Your task to perform on an android device: show emergency info Image 0: 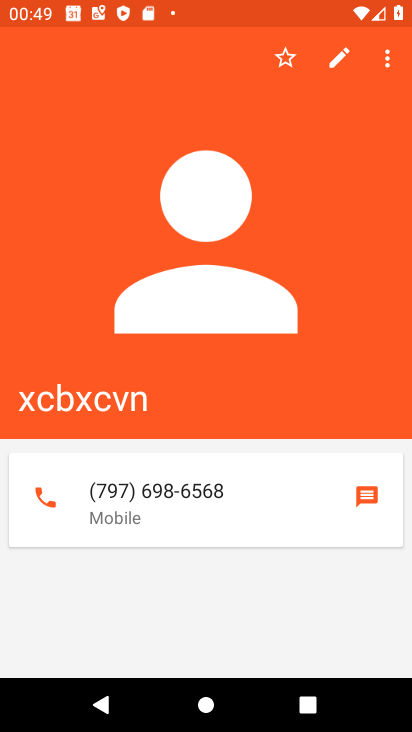
Step 0: press home button
Your task to perform on an android device: show emergency info Image 1: 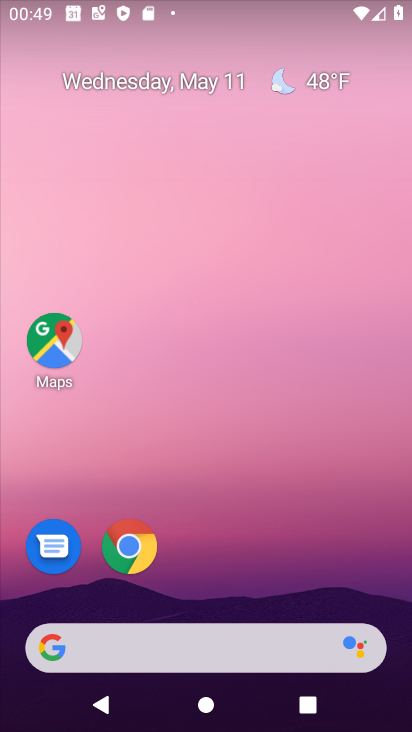
Step 1: drag from (212, 587) to (227, 161)
Your task to perform on an android device: show emergency info Image 2: 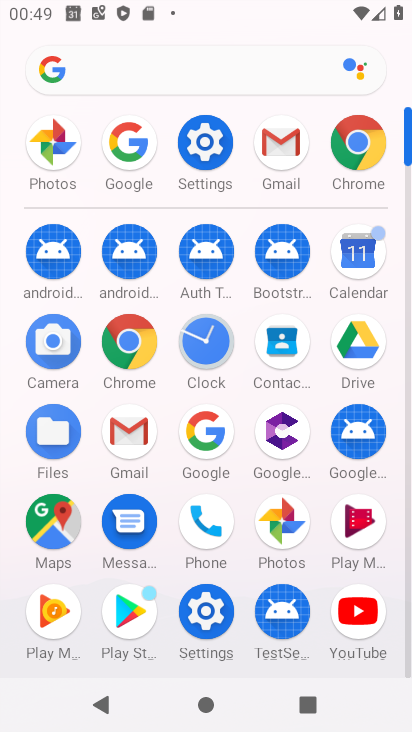
Step 2: click (209, 139)
Your task to perform on an android device: show emergency info Image 3: 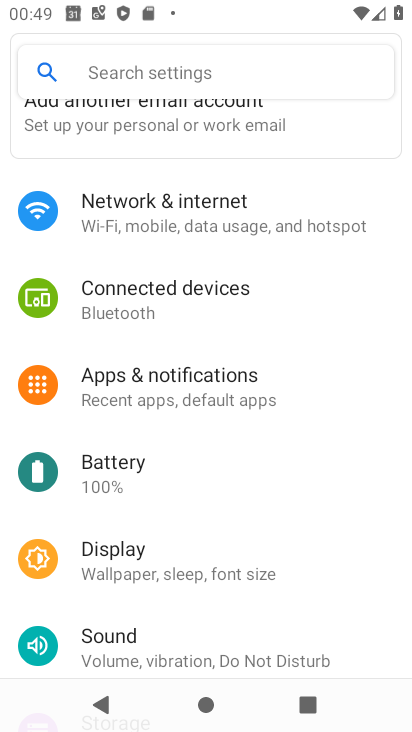
Step 3: drag from (210, 635) to (207, 206)
Your task to perform on an android device: show emergency info Image 4: 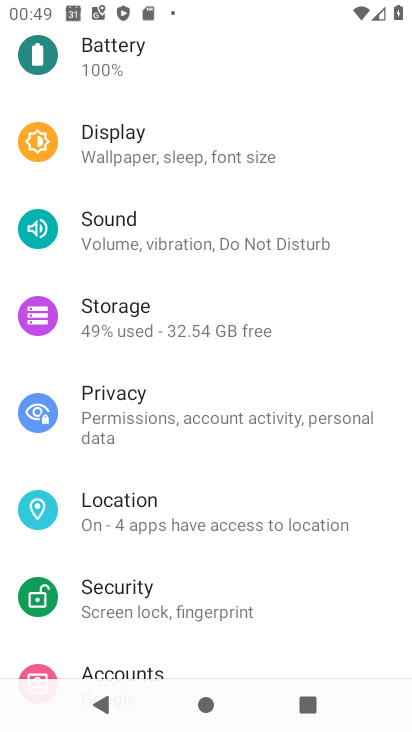
Step 4: drag from (203, 613) to (208, 265)
Your task to perform on an android device: show emergency info Image 5: 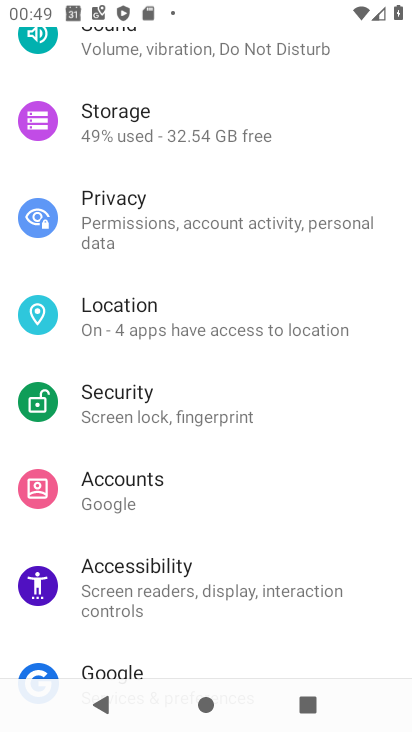
Step 5: drag from (208, 562) to (216, 254)
Your task to perform on an android device: show emergency info Image 6: 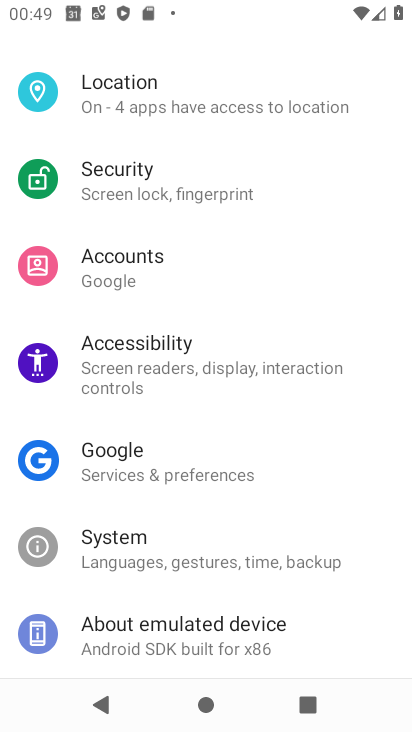
Step 6: drag from (181, 616) to (193, 349)
Your task to perform on an android device: show emergency info Image 7: 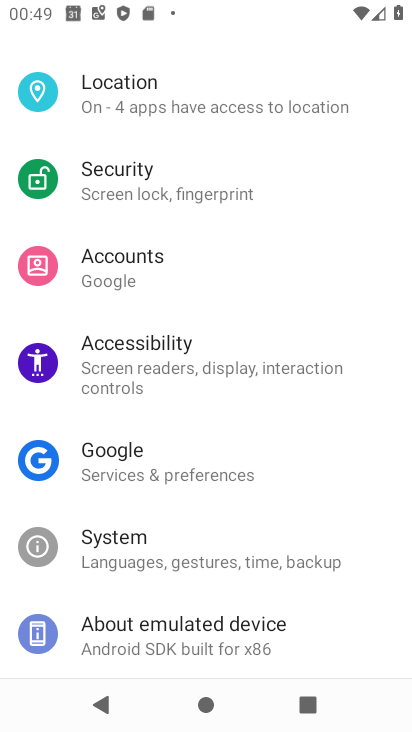
Step 7: drag from (145, 538) to (269, 491)
Your task to perform on an android device: show emergency info Image 8: 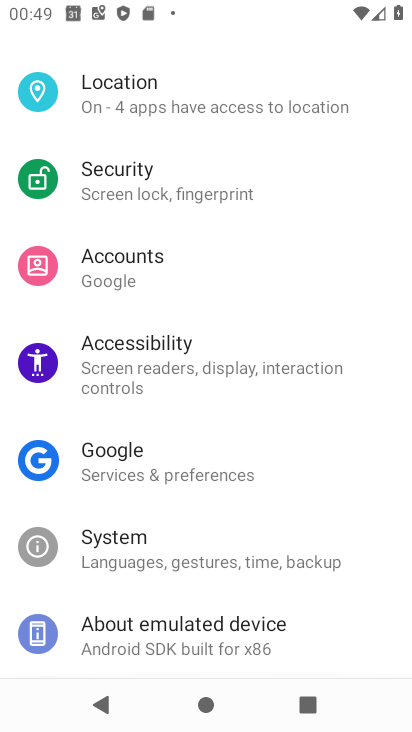
Step 8: click (194, 629)
Your task to perform on an android device: show emergency info Image 9: 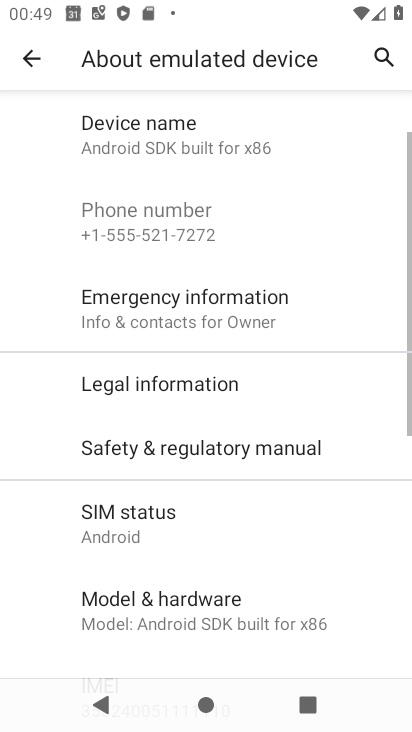
Step 9: click (143, 294)
Your task to perform on an android device: show emergency info Image 10: 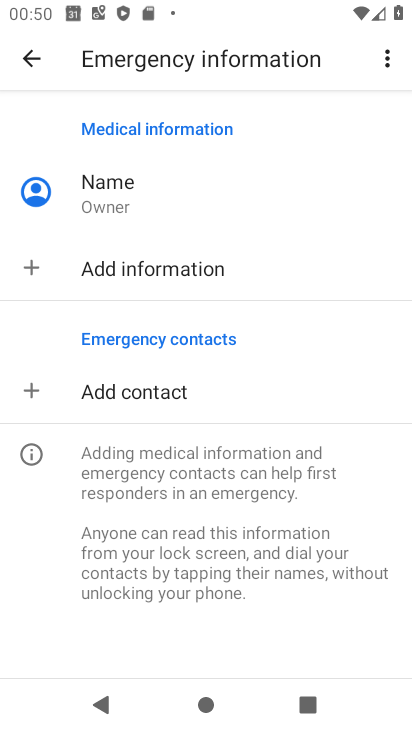
Step 10: task complete